Your task to perform on an android device: Go to Reddit.com Image 0: 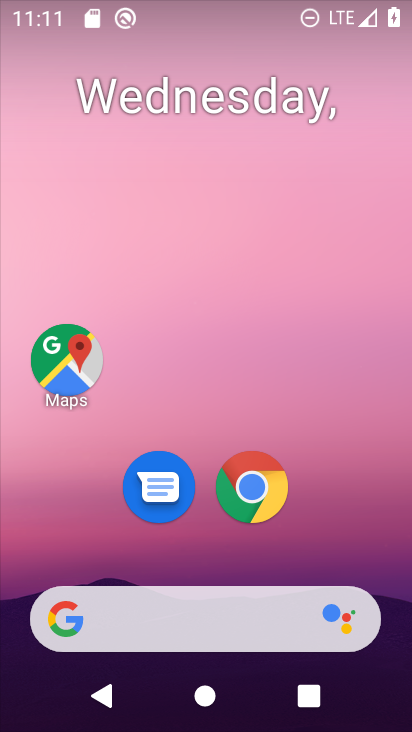
Step 0: click (256, 489)
Your task to perform on an android device: Go to Reddit.com Image 1: 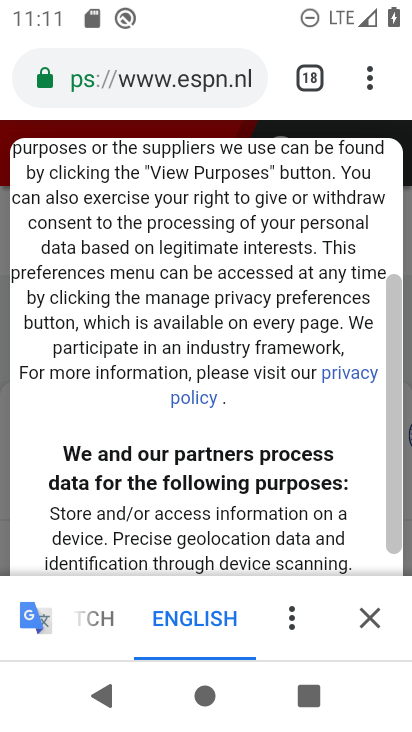
Step 1: click (366, 73)
Your task to perform on an android device: Go to Reddit.com Image 2: 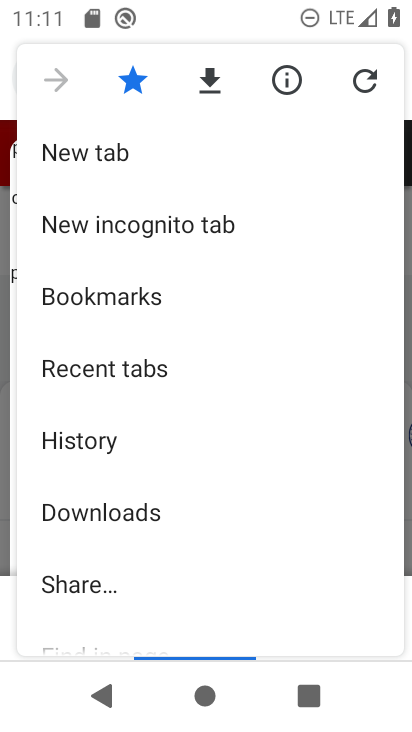
Step 2: drag from (255, 446) to (259, 160)
Your task to perform on an android device: Go to Reddit.com Image 3: 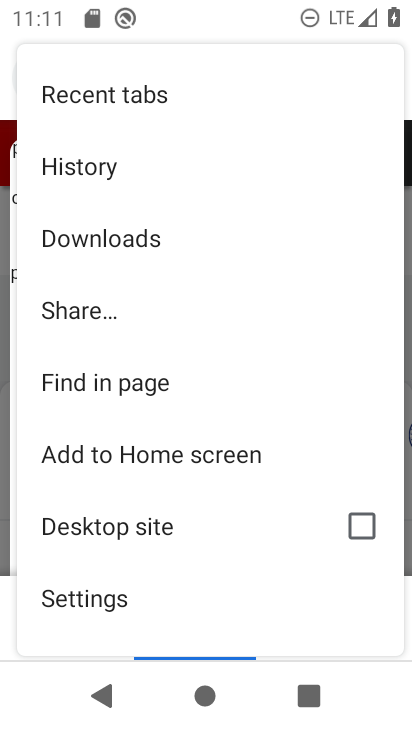
Step 3: drag from (259, 160) to (215, 640)
Your task to perform on an android device: Go to Reddit.com Image 4: 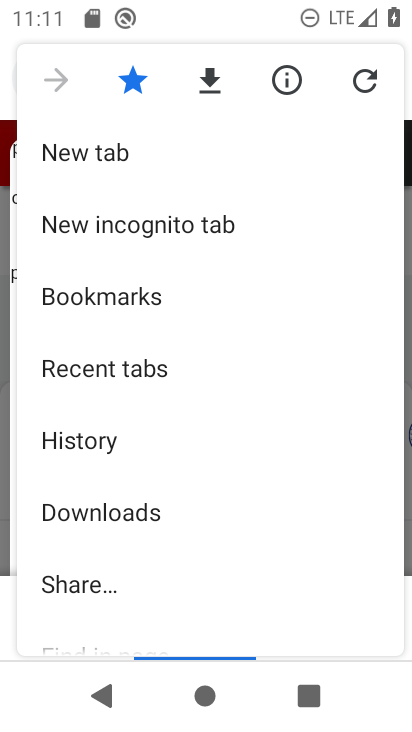
Step 4: click (78, 155)
Your task to perform on an android device: Go to Reddit.com Image 5: 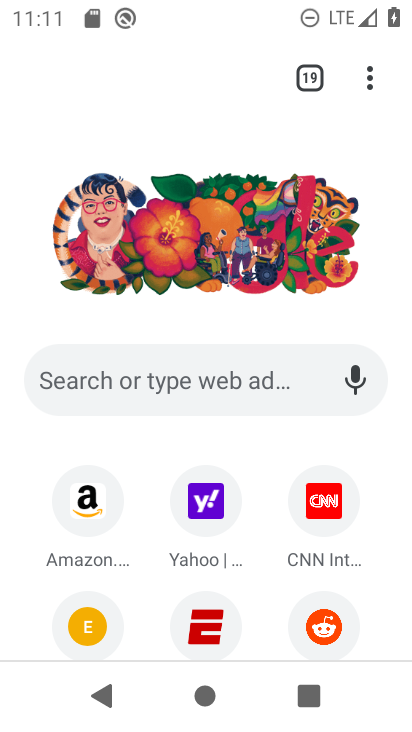
Step 5: drag from (247, 571) to (257, 273)
Your task to perform on an android device: Go to Reddit.com Image 6: 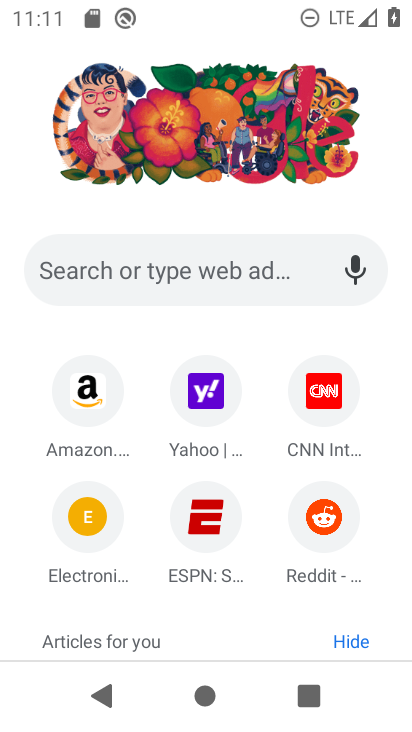
Step 6: click (324, 507)
Your task to perform on an android device: Go to Reddit.com Image 7: 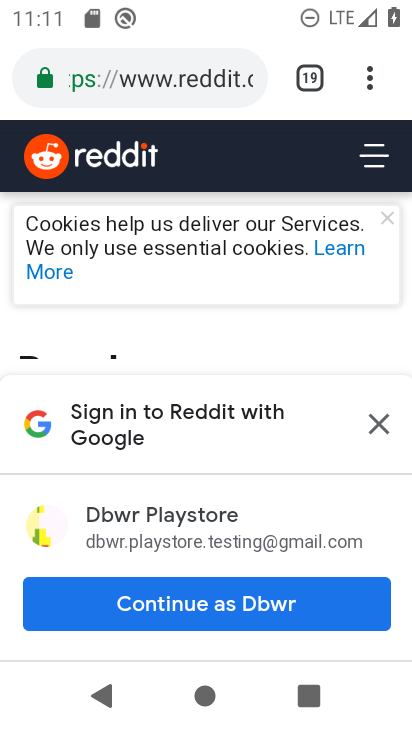
Step 7: click (380, 423)
Your task to perform on an android device: Go to Reddit.com Image 8: 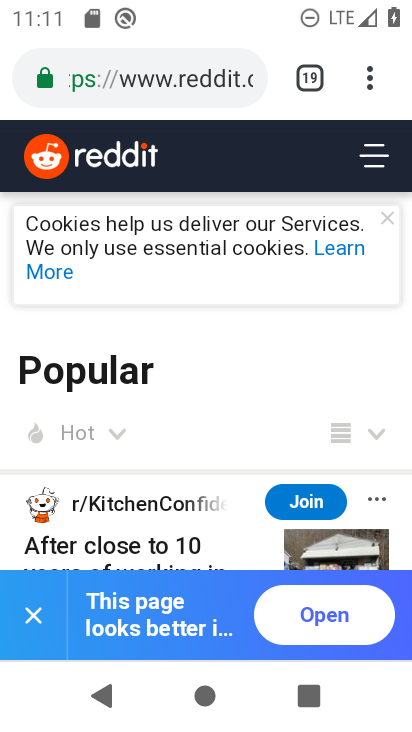
Step 8: task complete